Your task to perform on an android device: Open maps Image 0: 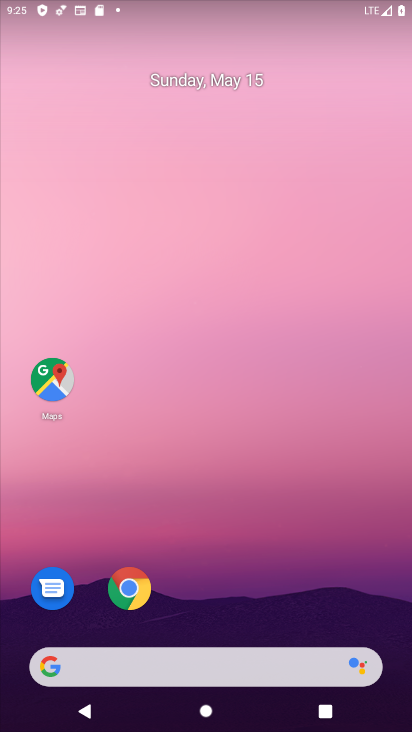
Step 0: click (53, 393)
Your task to perform on an android device: Open maps Image 1: 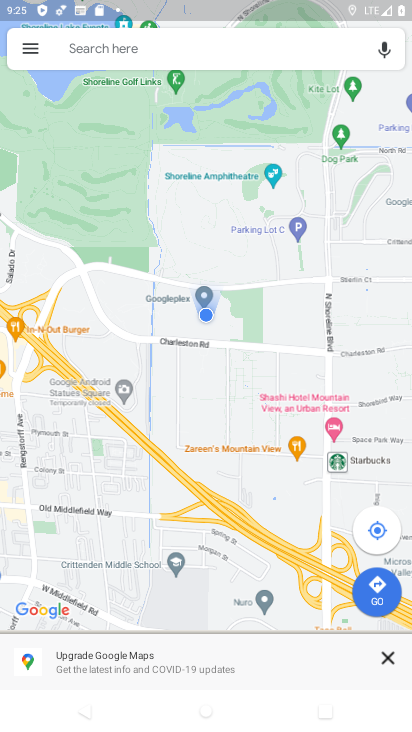
Step 1: press home button
Your task to perform on an android device: Open maps Image 2: 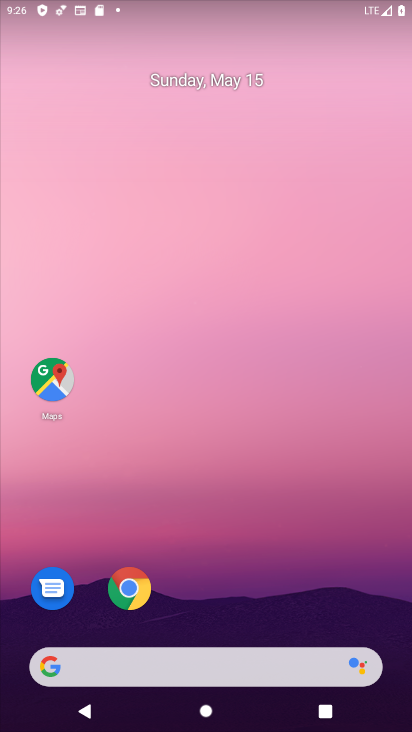
Step 2: click (54, 384)
Your task to perform on an android device: Open maps Image 3: 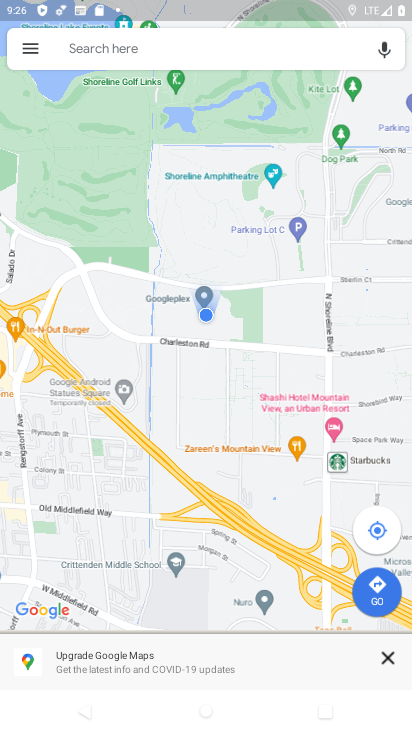
Step 3: task complete